Your task to perform on an android device: Show me productivity apps on the Play Store Image 0: 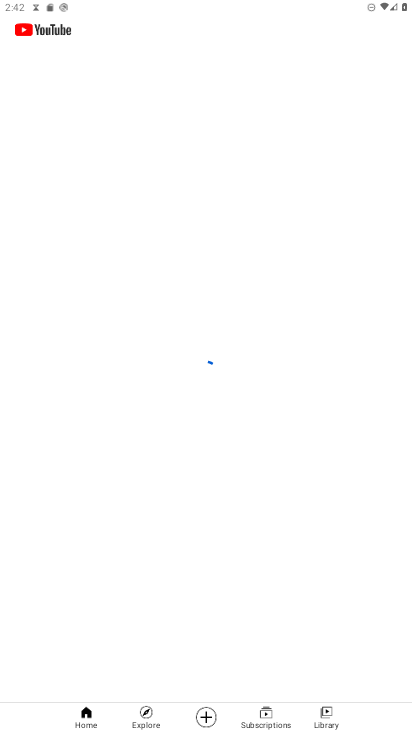
Step 0: drag from (266, 170) to (220, 7)
Your task to perform on an android device: Show me productivity apps on the Play Store Image 1: 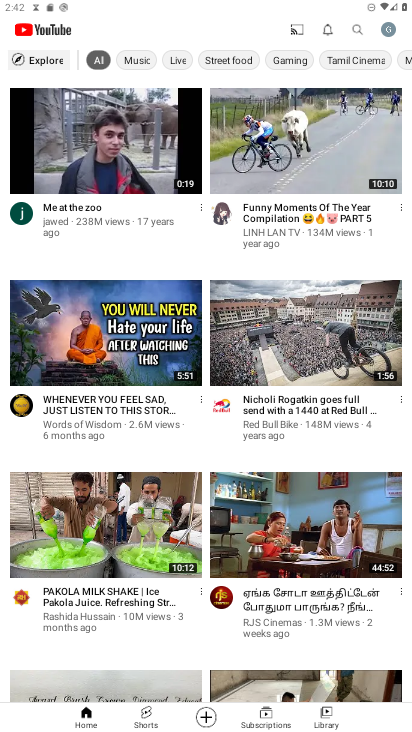
Step 1: press home button
Your task to perform on an android device: Show me productivity apps on the Play Store Image 2: 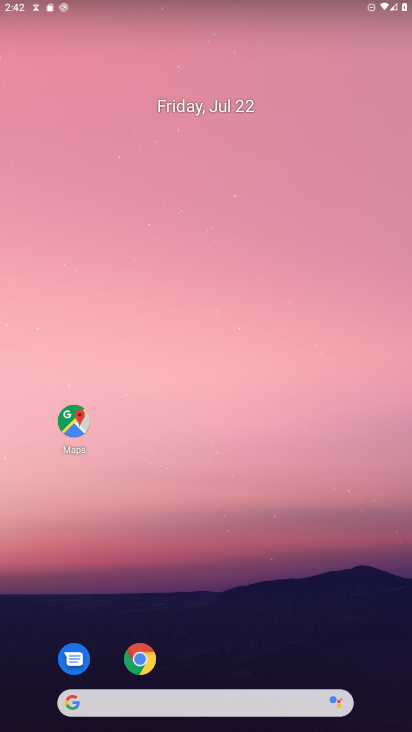
Step 2: drag from (176, 600) to (266, 0)
Your task to perform on an android device: Show me productivity apps on the Play Store Image 3: 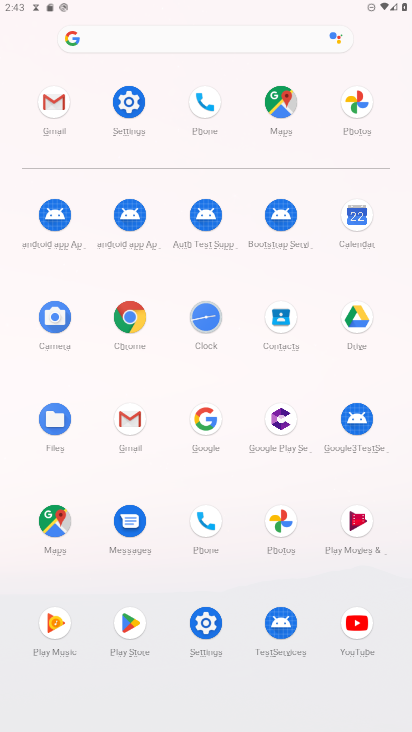
Step 3: click (141, 623)
Your task to perform on an android device: Show me productivity apps on the Play Store Image 4: 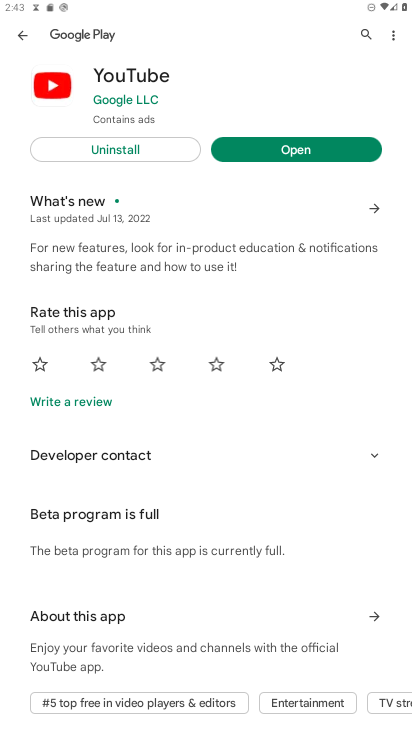
Step 4: click (26, 33)
Your task to perform on an android device: Show me productivity apps on the Play Store Image 5: 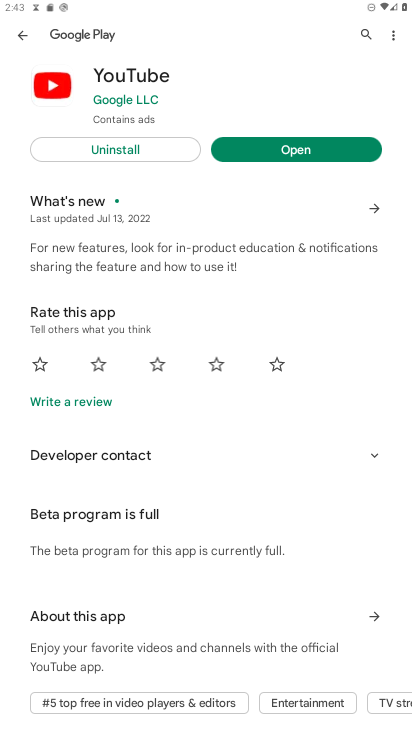
Step 5: click (28, 41)
Your task to perform on an android device: Show me productivity apps on the Play Store Image 6: 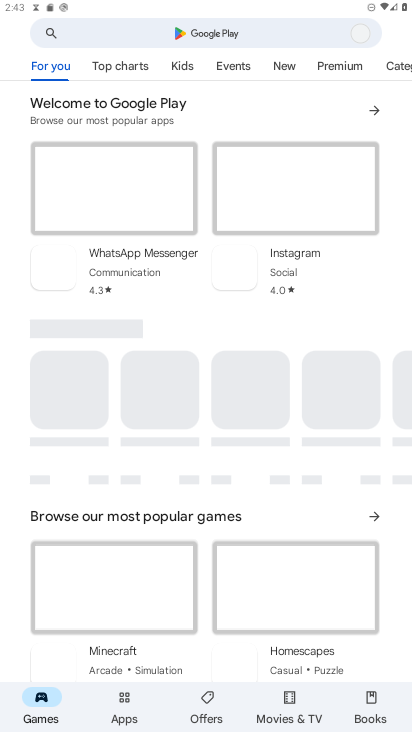
Step 6: click (198, 42)
Your task to perform on an android device: Show me productivity apps on the Play Store Image 7: 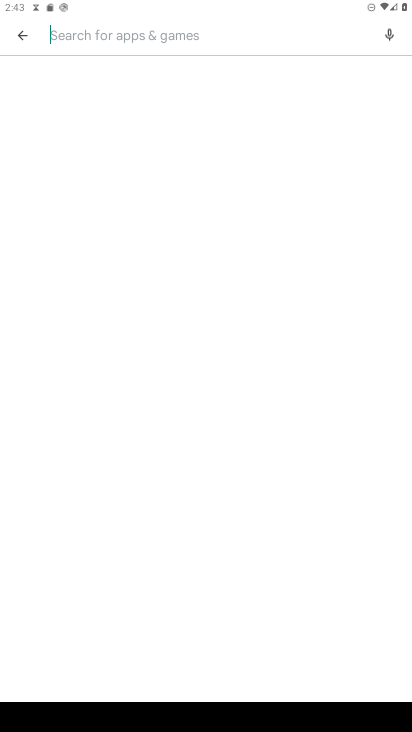
Step 7: type " productivity apps "
Your task to perform on an android device: Show me productivity apps on the Play Store Image 8: 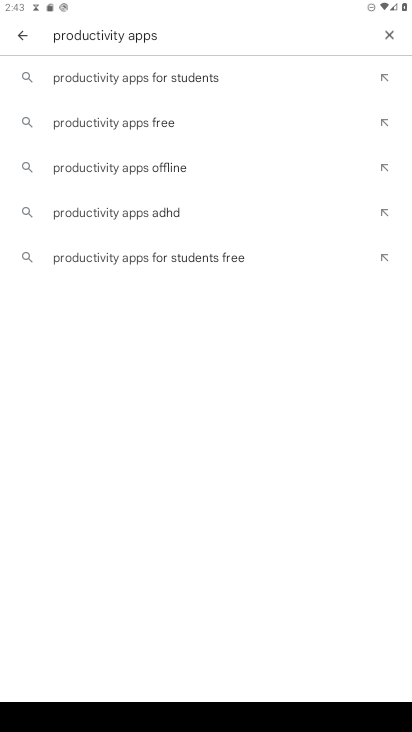
Step 8: press enter
Your task to perform on an android device: Show me productivity apps on the Play Store Image 9: 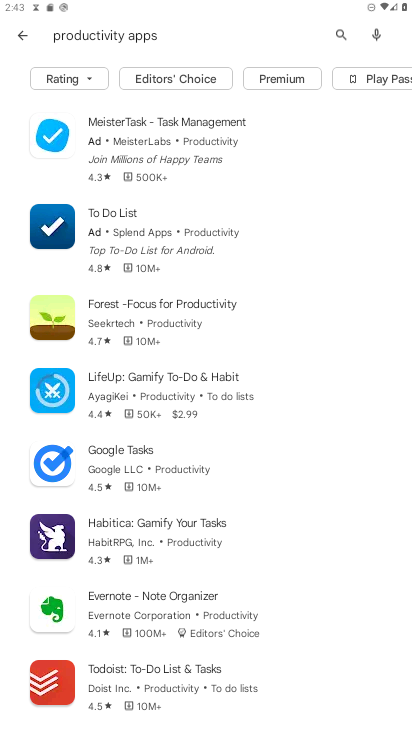
Step 9: task complete